Your task to perform on an android device: check storage Image 0: 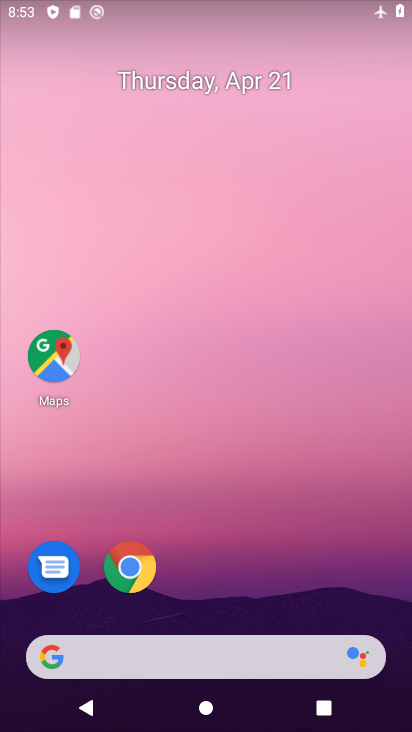
Step 0: drag from (353, 549) to (301, 202)
Your task to perform on an android device: check storage Image 1: 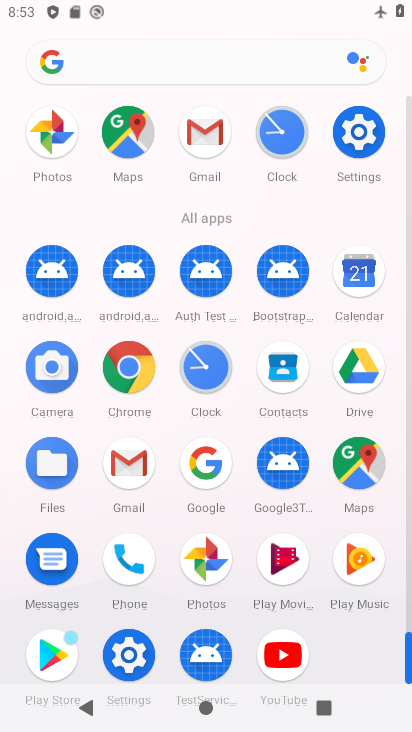
Step 1: click (128, 656)
Your task to perform on an android device: check storage Image 2: 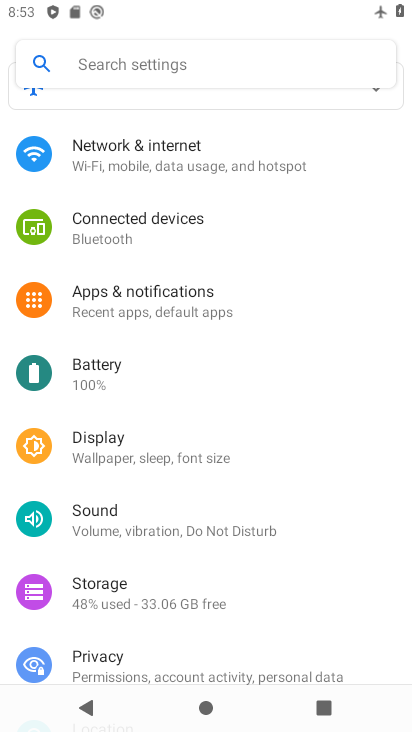
Step 2: click (106, 584)
Your task to perform on an android device: check storage Image 3: 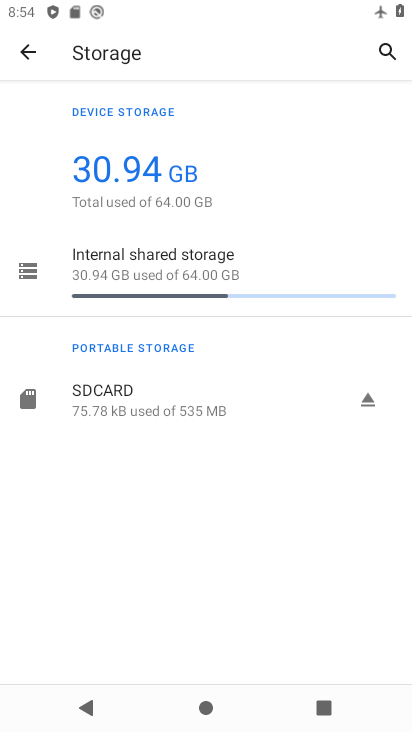
Step 3: task complete